Your task to perform on an android device: Open network settings Image 0: 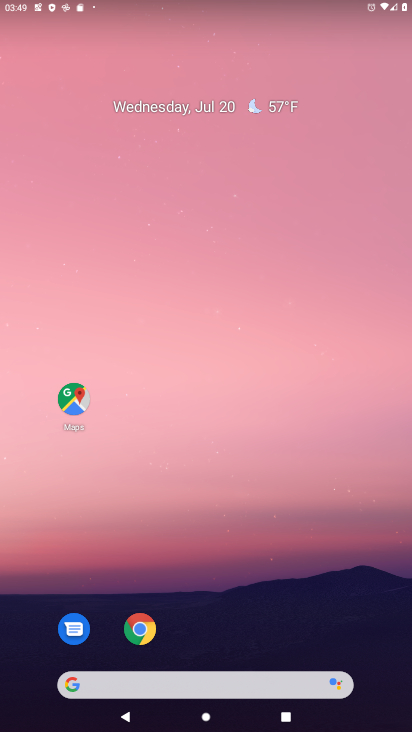
Step 0: drag from (381, 667) to (340, 99)
Your task to perform on an android device: Open network settings Image 1: 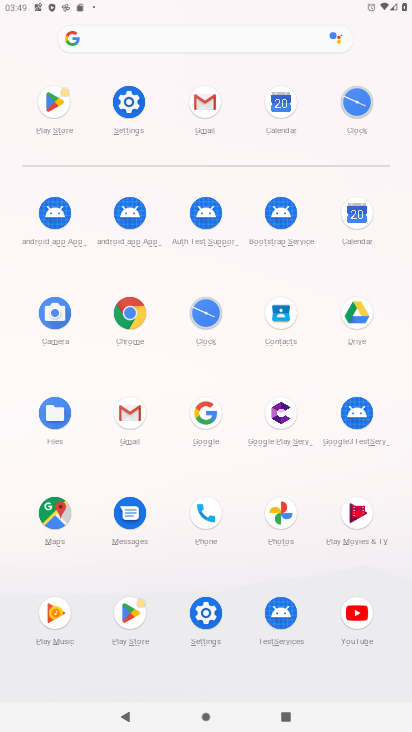
Step 1: click (205, 615)
Your task to perform on an android device: Open network settings Image 2: 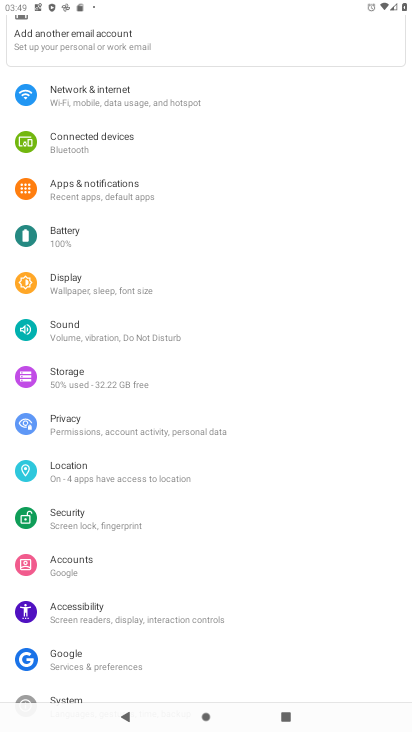
Step 2: click (74, 92)
Your task to perform on an android device: Open network settings Image 3: 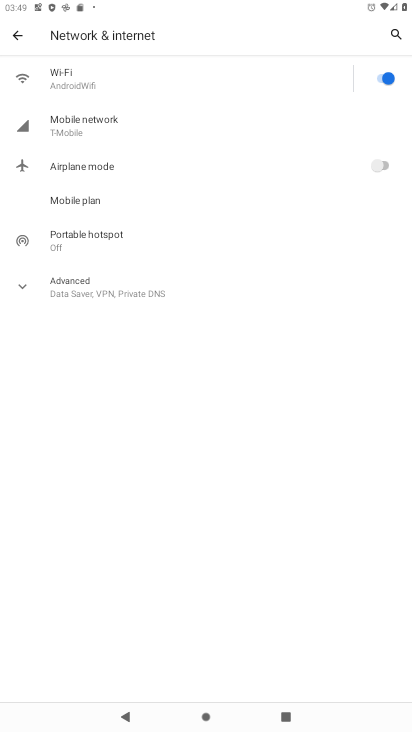
Step 3: click (79, 114)
Your task to perform on an android device: Open network settings Image 4: 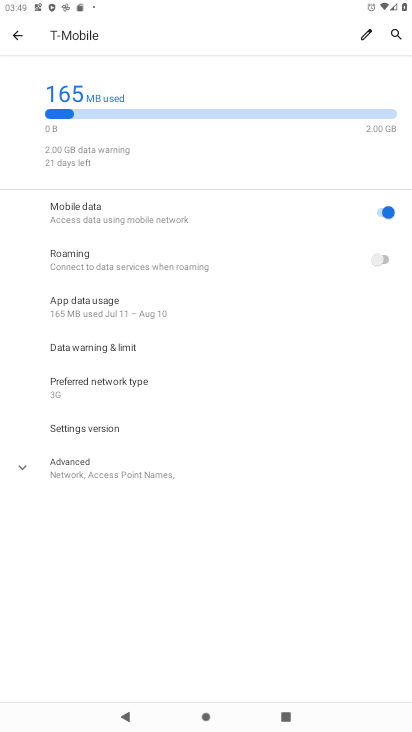
Step 4: click (20, 465)
Your task to perform on an android device: Open network settings Image 5: 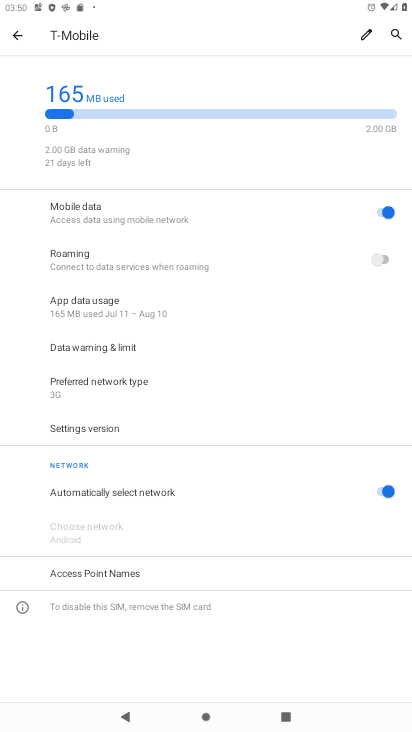
Step 5: task complete